Your task to perform on an android device: toggle data saver in the chrome app Image 0: 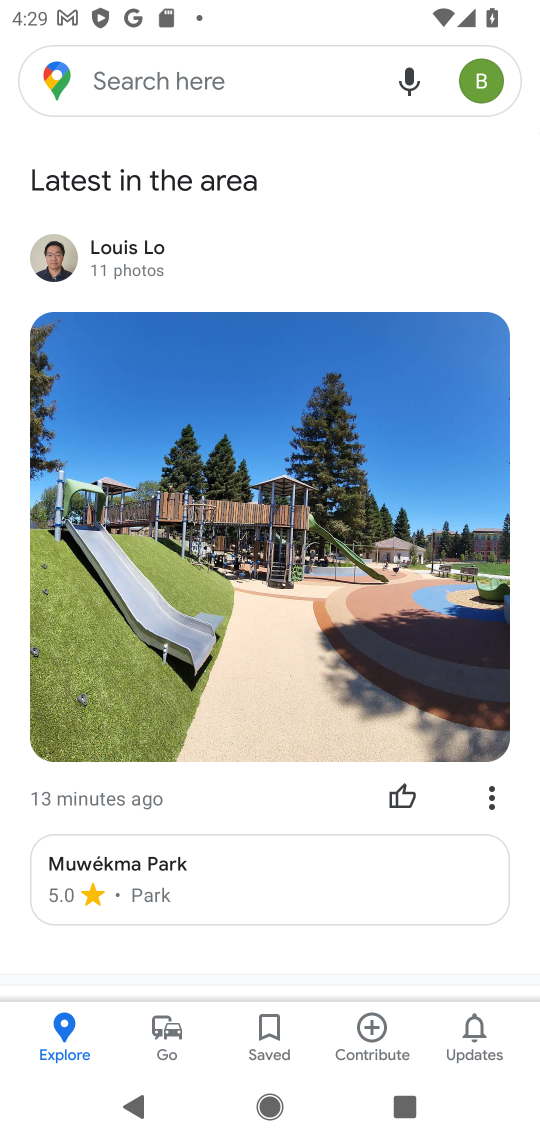
Step 0: press home button
Your task to perform on an android device: toggle data saver in the chrome app Image 1: 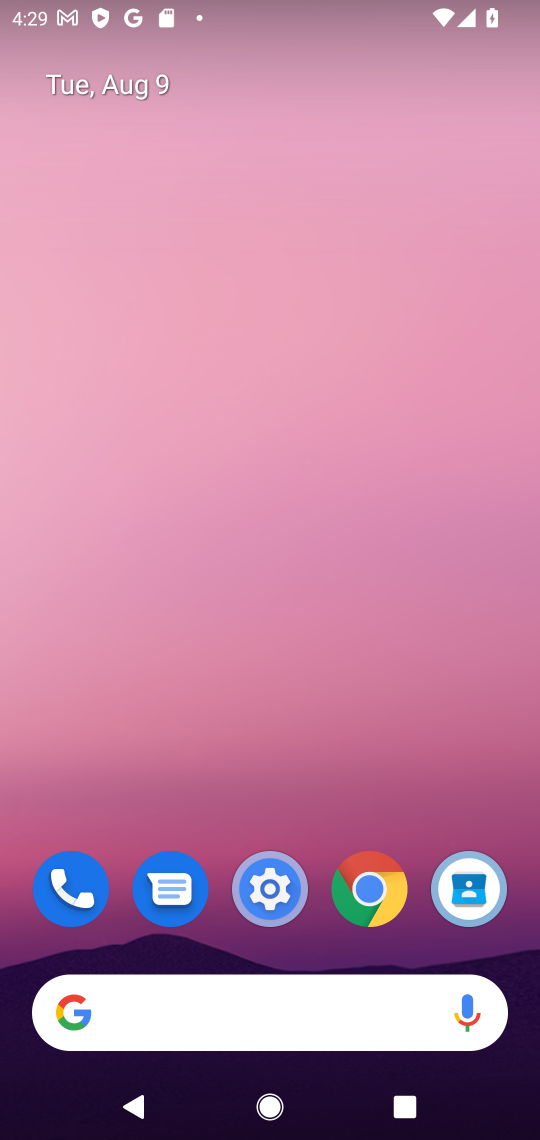
Step 1: click (368, 889)
Your task to perform on an android device: toggle data saver in the chrome app Image 2: 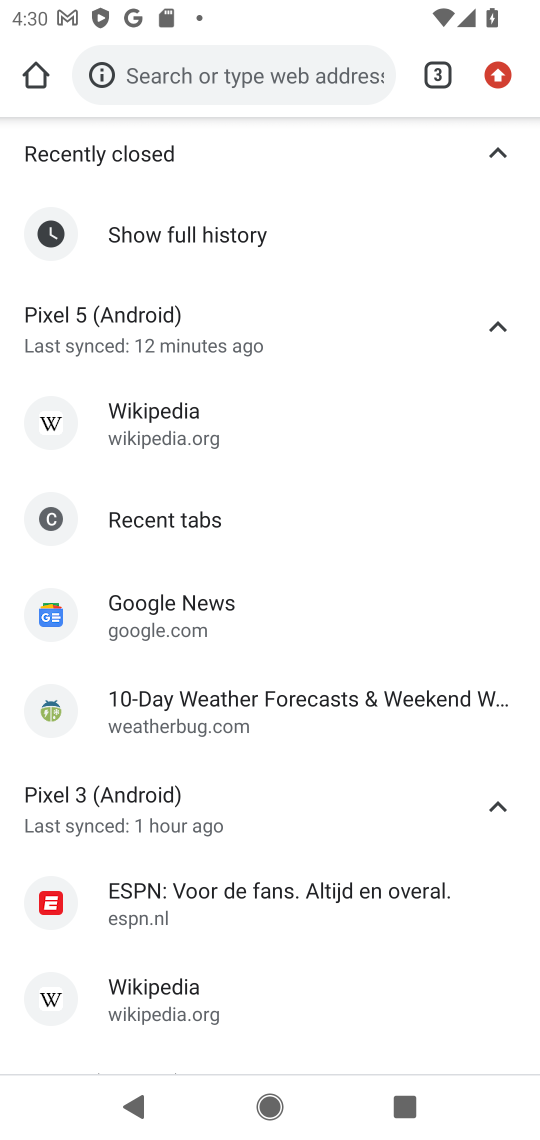
Step 2: click (502, 68)
Your task to perform on an android device: toggle data saver in the chrome app Image 3: 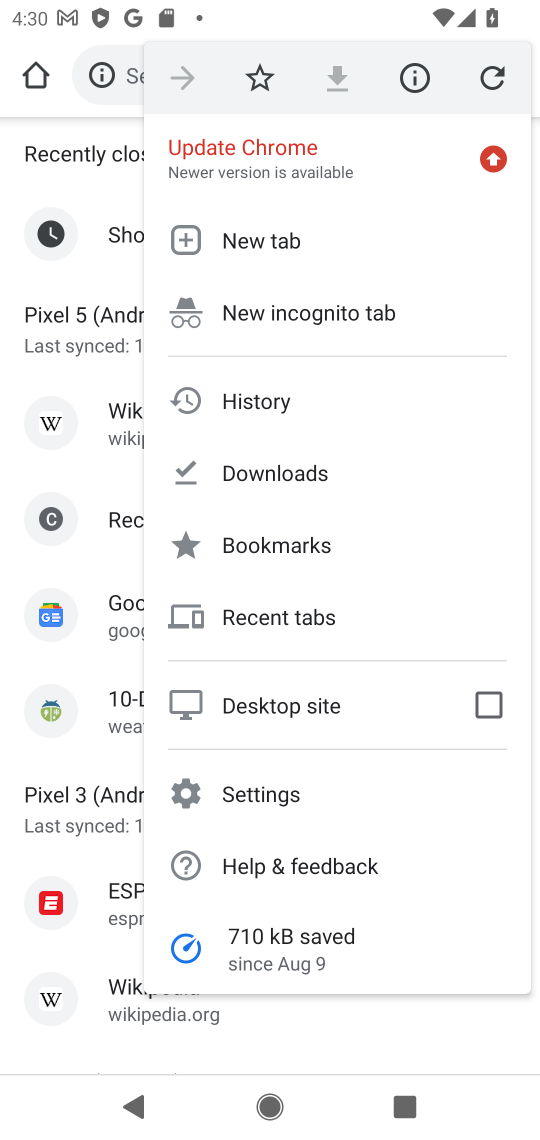
Step 3: click (304, 784)
Your task to perform on an android device: toggle data saver in the chrome app Image 4: 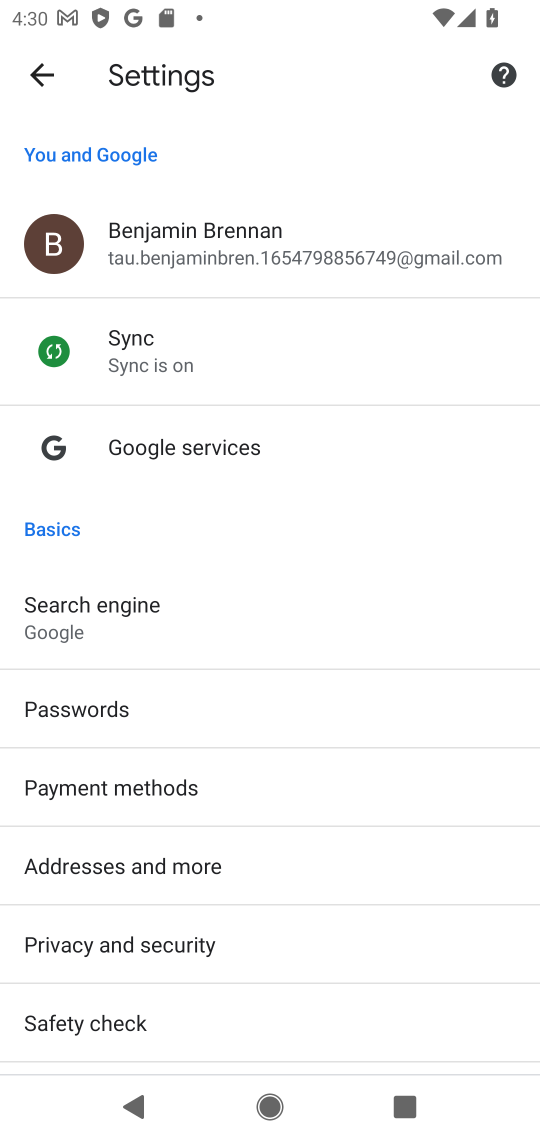
Step 4: drag from (313, 783) to (375, 2)
Your task to perform on an android device: toggle data saver in the chrome app Image 5: 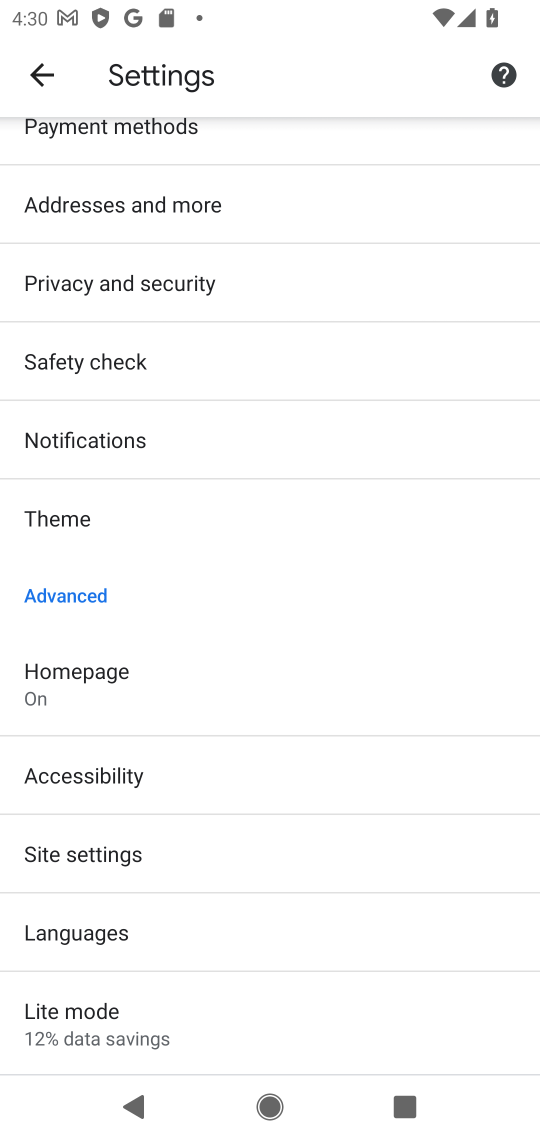
Step 5: drag from (272, 833) to (311, 306)
Your task to perform on an android device: toggle data saver in the chrome app Image 6: 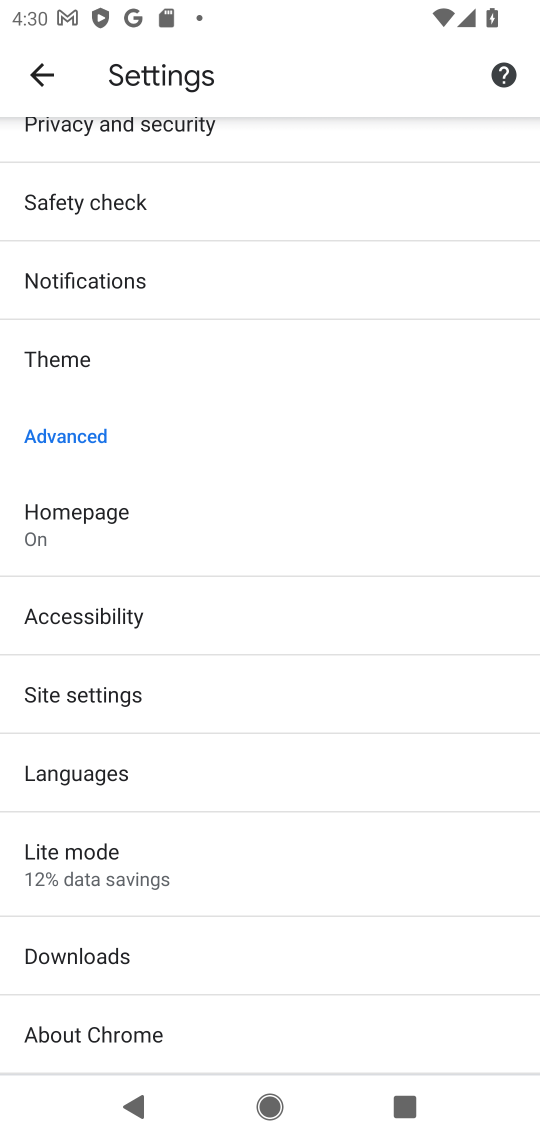
Step 6: click (252, 854)
Your task to perform on an android device: toggle data saver in the chrome app Image 7: 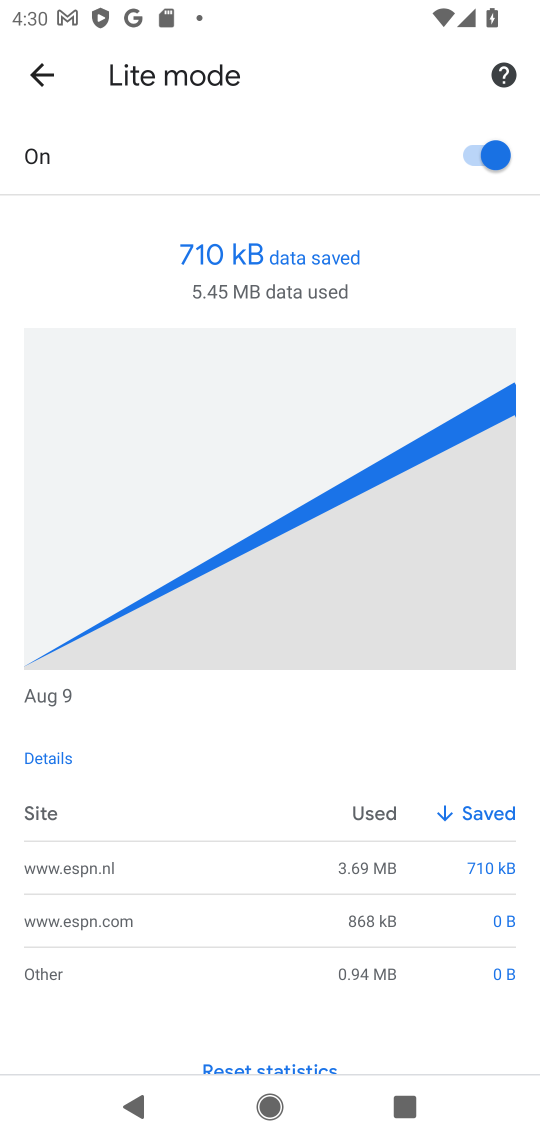
Step 7: click (487, 159)
Your task to perform on an android device: toggle data saver in the chrome app Image 8: 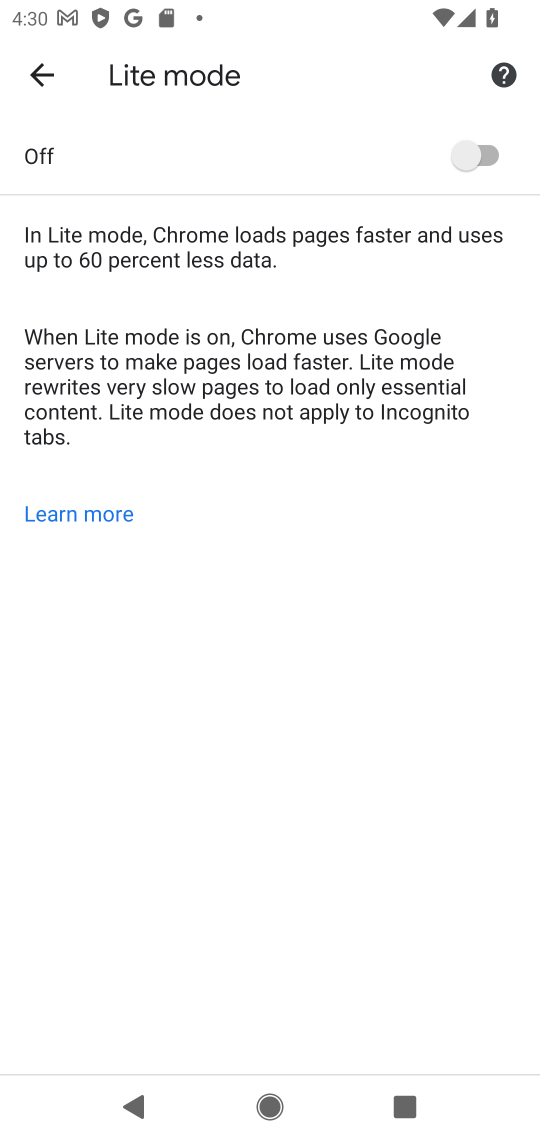
Step 8: task complete